Your task to perform on an android device: Go to Reddit.com Image 0: 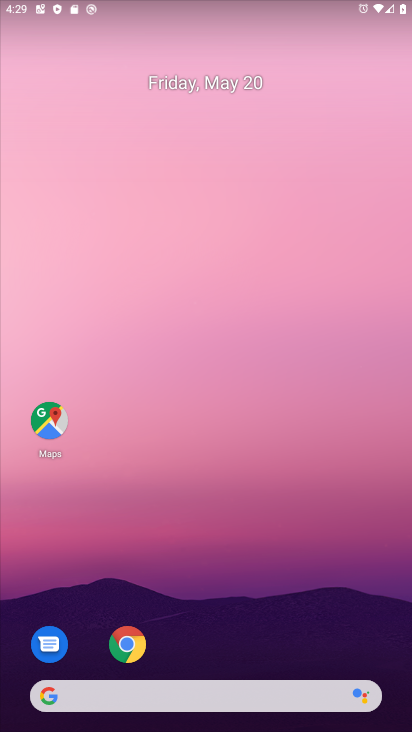
Step 0: drag from (242, 621) to (235, 165)
Your task to perform on an android device: Go to Reddit.com Image 1: 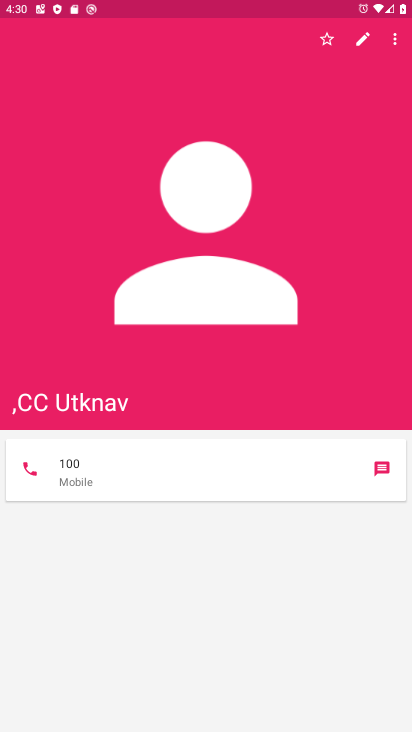
Step 1: press home button
Your task to perform on an android device: Go to Reddit.com Image 2: 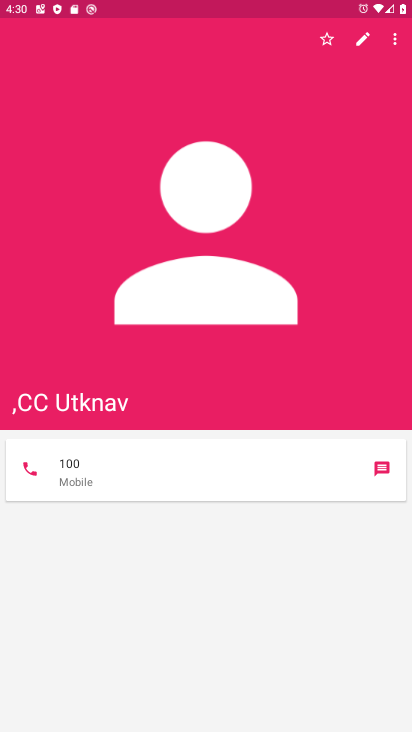
Step 2: press home button
Your task to perform on an android device: Go to Reddit.com Image 3: 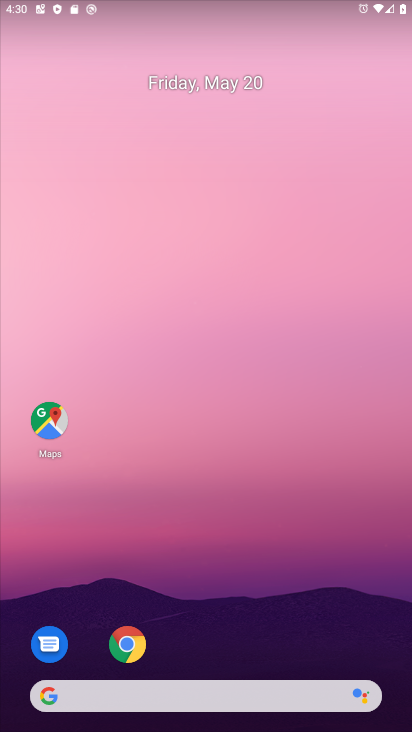
Step 3: click (233, 697)
Your task to perform on an android device: Go to Reddit.com Image 4: 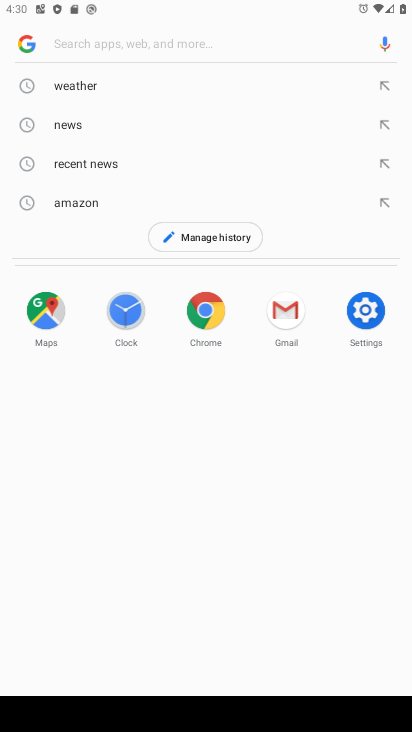
Step 4: type "reddit.com"
Your task to perform on an android device: Go to Reddit.com Image 5: 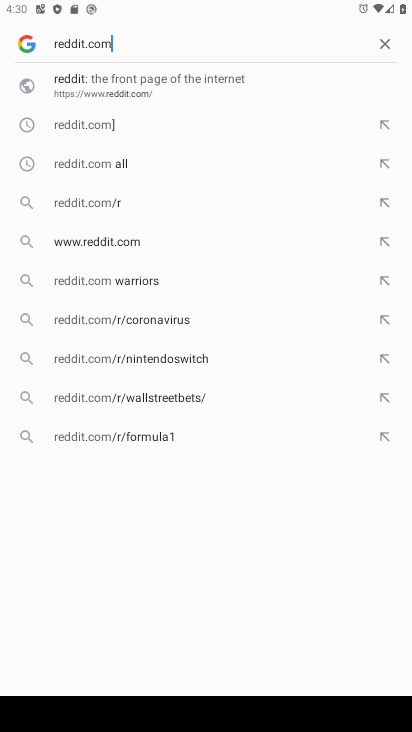
Step 5: click (123, 80)
Your task to perform on an android device: Go to Reddit.com Image 6: 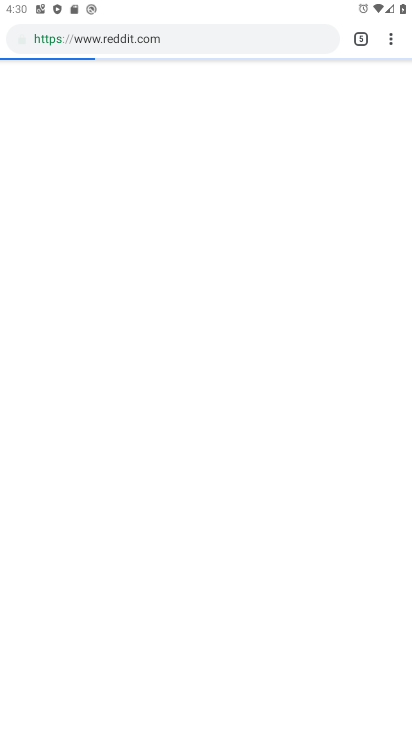
Step 6: task complete